Your task to perform on an android device: Go to Yahoo.com Image 0: 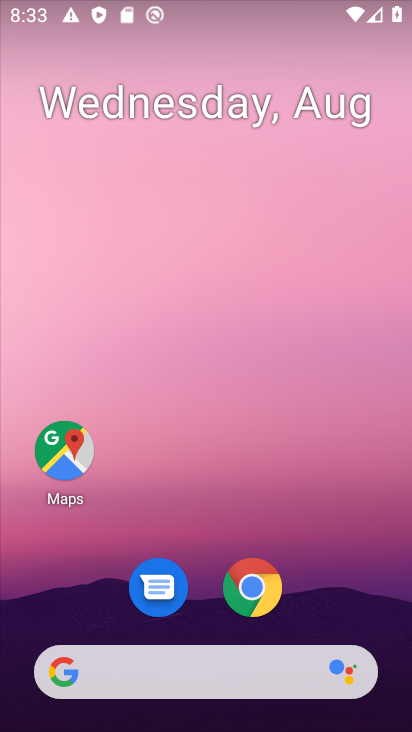
Step 0: click (123, 387)
Your task to perform on an android device: Go to Yahoo.com Image 1: 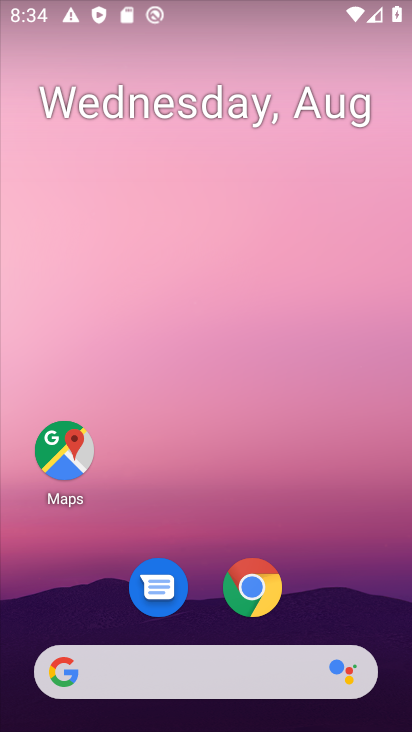
Step 1: drag from (202, 606) to (184, 206)
Your task to perform on an android device: Go to Yahoo.com Image 2: 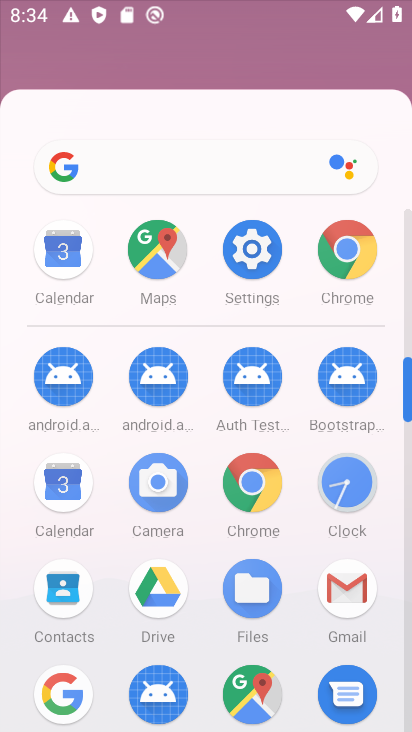
Step 2: drag from (152, 661) to (165, 169)
Your task to perform on an android device: Go to Yahoo.com Image 3: 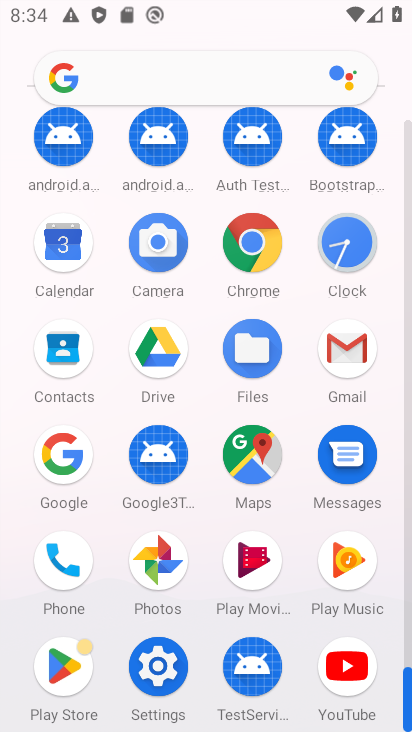
Step 3: click (237, 238)
Your task to perform on an android device: Go to Yahoo.com Image 4: 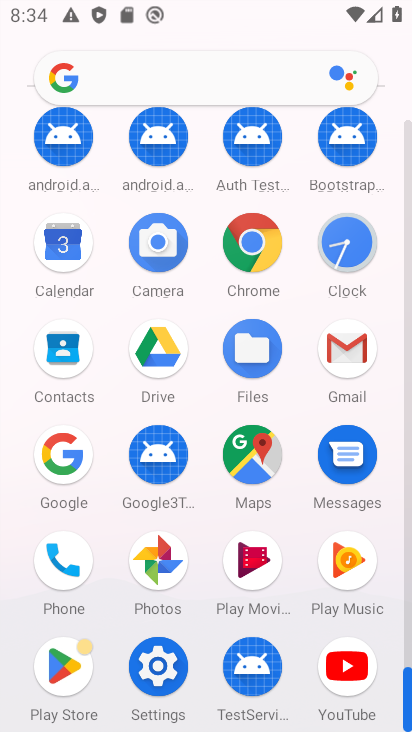
Step 4: click (237, 238)
Your task to perform on an android device: Go to Yahoo.com Image 5: 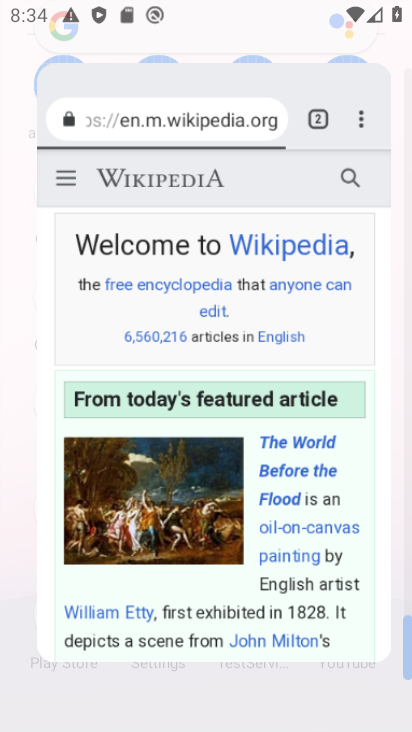
Step 5: click (237, 238)
Your task to perform on an android device: Go to Yahoo.com Image 6: 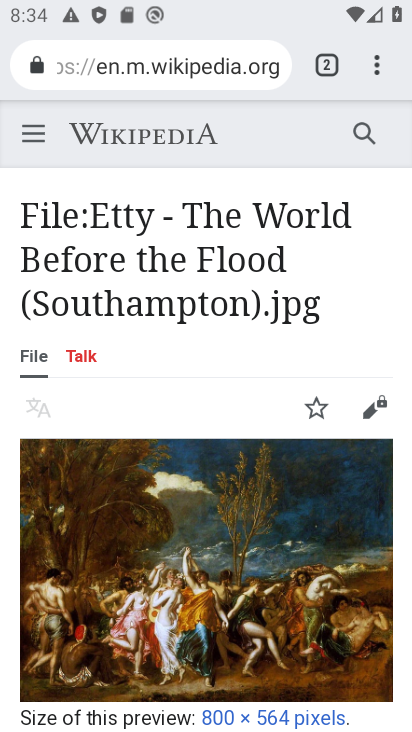
Step 6: click (377, 56)
Your task to perform on an android device: Go to Yahoo.com Image 7: 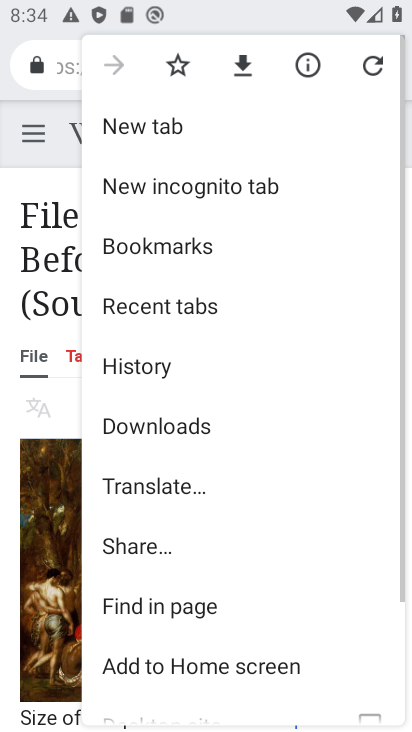
Step 7: click (63, 139)
Your task to perform on an android device: Go to Yahoo.com Image 8: 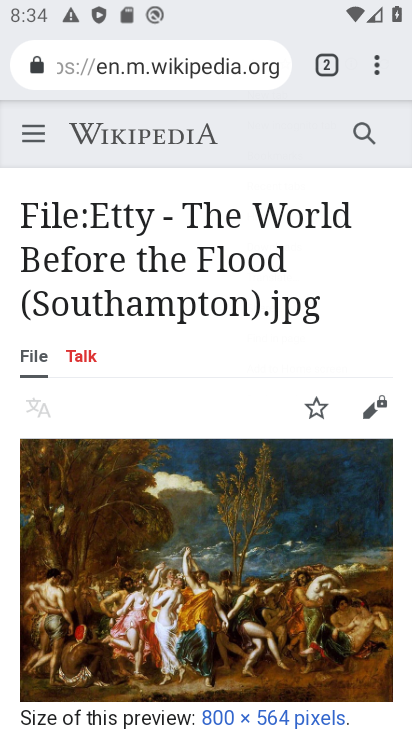
Step 8: click (99, 119)
Your task to perform on an android device: Go to Yahoo.com Image 9: 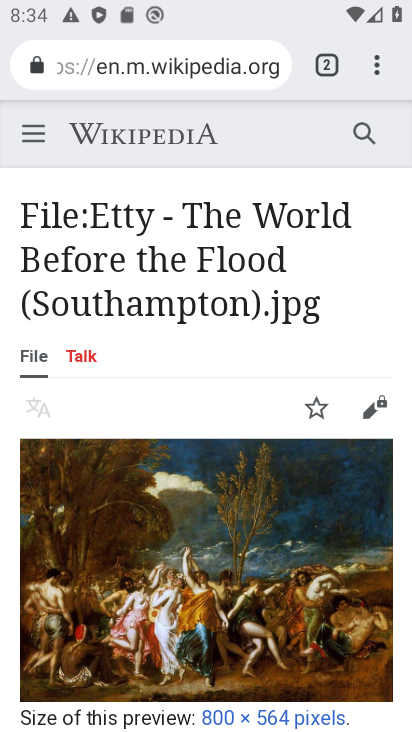
Step 9: click (372, 51)
Your task to perform on an android device: Go to Yahoo.com Image 10: 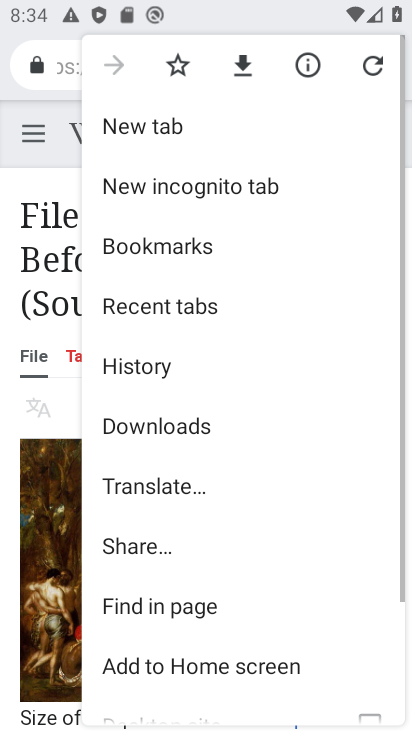
Step 10: click (130, 124)
Your task to perform on an android device: Go to Yahoo.com Image 11: 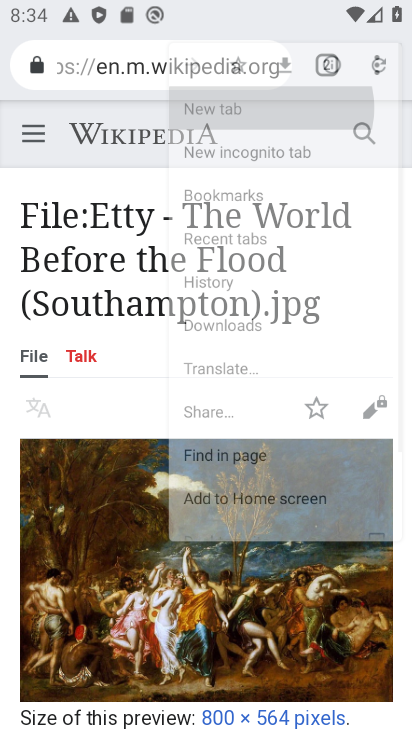
Step 11: click (131, 124)
Your task to perform on an android device: Go to Yahoo.com Image 12: 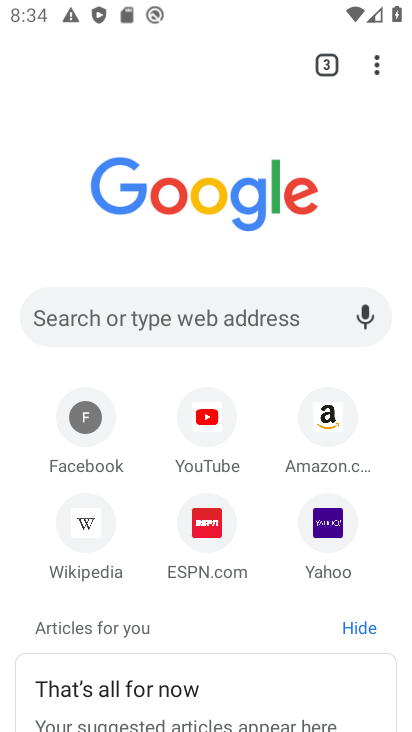
Step 12: click (337, 523)
Your task to perform on an android device: Go to Yahoo.com Image 13: 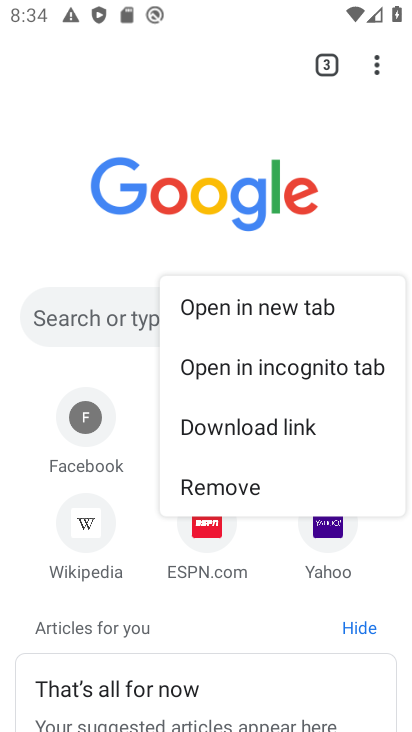
Step 13: click (338, 524)
Your task to perform on an android device: Go to Yahoo.com Image 14: 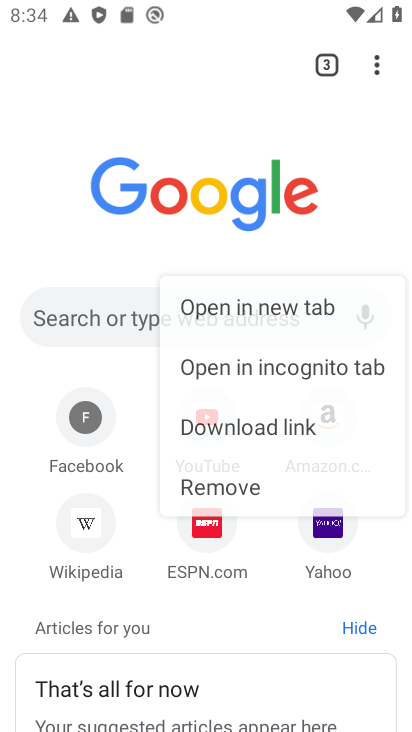
Step 14: click (344, 522)
Your task to perform on an android device: Go to Yahoo.com Image 15: 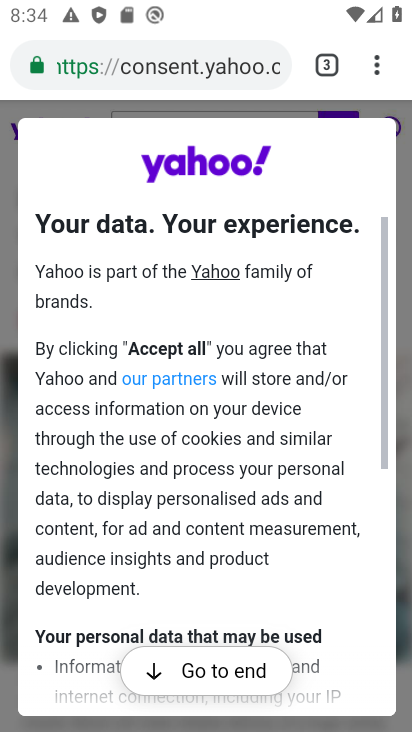
Step 15: task complete